Your task to perform on an android device: turn on bluetooth scan Image 0: 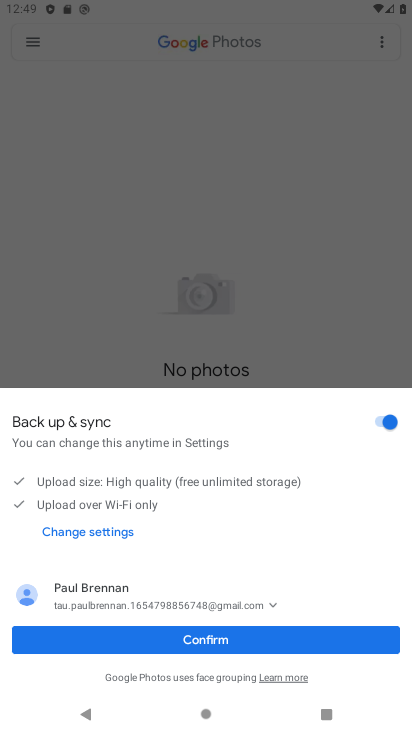
Step 0: press home button
Your task to perform on an android device: turn on bluetooth scan Image 1: 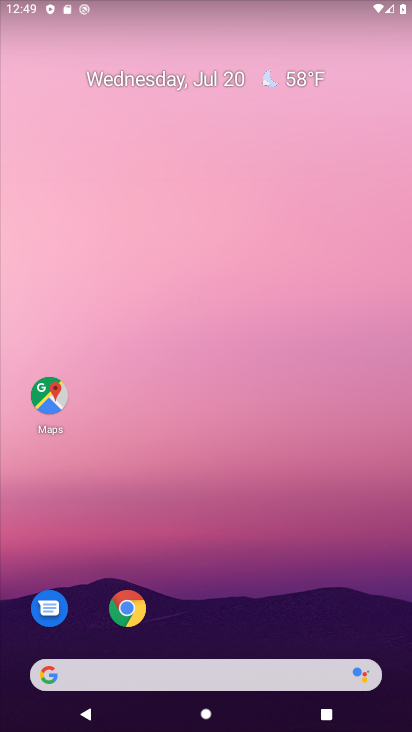
Step 1: drag from (272, 716) to (256, 35)
Your task to perform on an android device: turn on bluetooth scan Image 2: 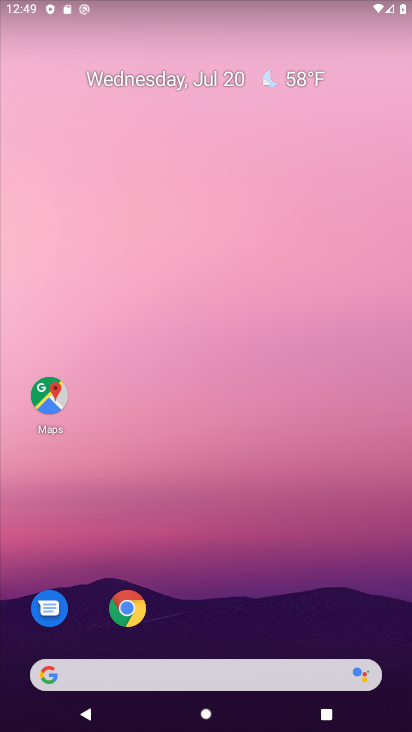
Step 2: drag from (277, 716) to (208, 60)
Your task to perform on an android device: turn on bluetooth scan Image 3: 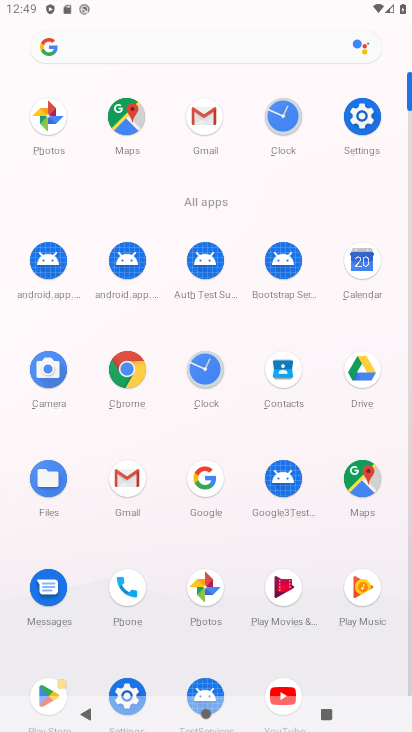
Step 3: click (368, 111)
Your task to perform on an android device: turn on bluetooth scan Image 4: 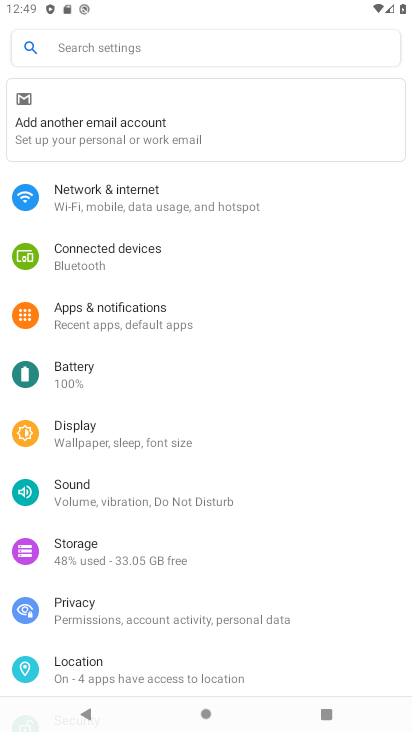
Step 4: click (142, 674)
Your task to perform on an android device: turn on bluetooth scan Image 5: 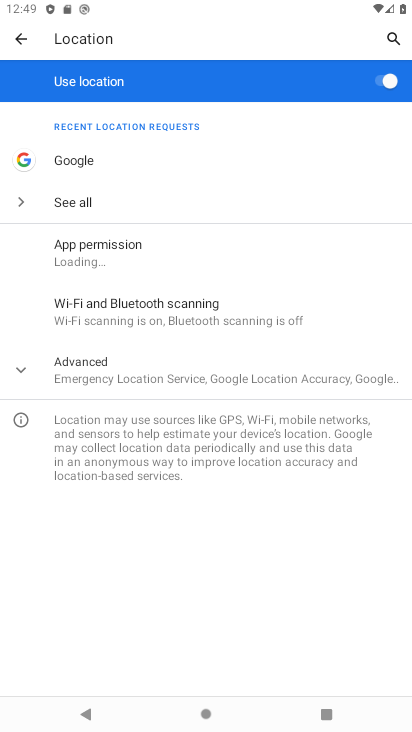
Step 5: click (307, 311)
Your task to perform on an android device: turn on bluetooth scan Image 6: 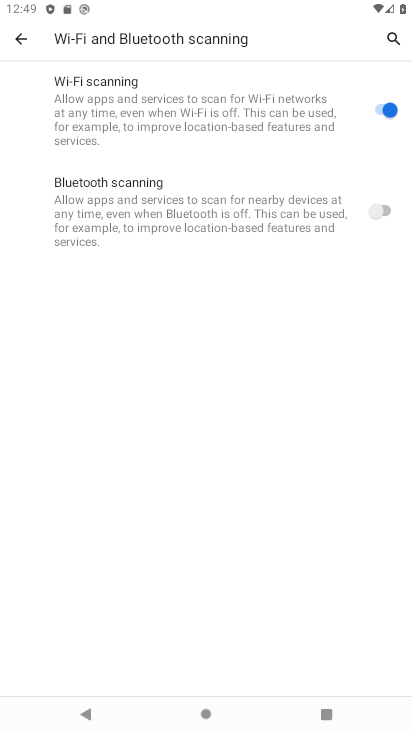
Step 6: click (350, 208)
Your task to perform on an android device: turn on bluetooth scan Image 7: 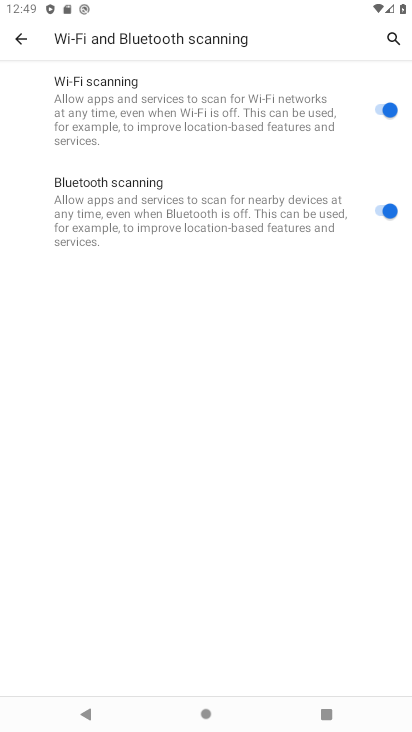
Step 7: task complete